Your task to perform on an android device: turn off javascript in the chrome app Image 0: 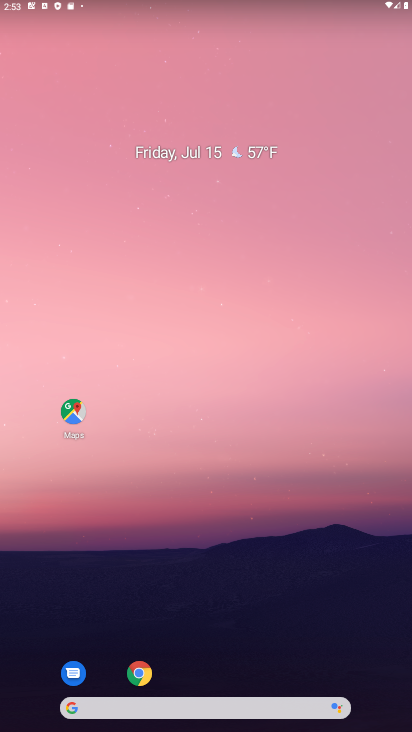
Step 0: click (138, 675)
Your task to perform on an android device: turn off javascript in the chrome app Image 1: 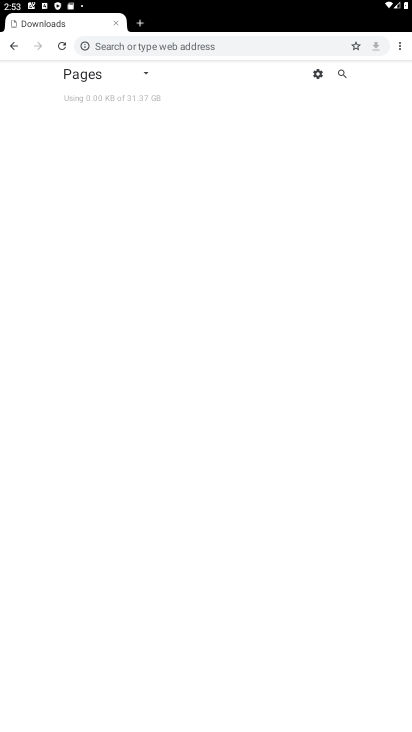
Step 1: click (399, 47)
Your task to perform on an android device: turn off javascript in the chrome app Image 2: 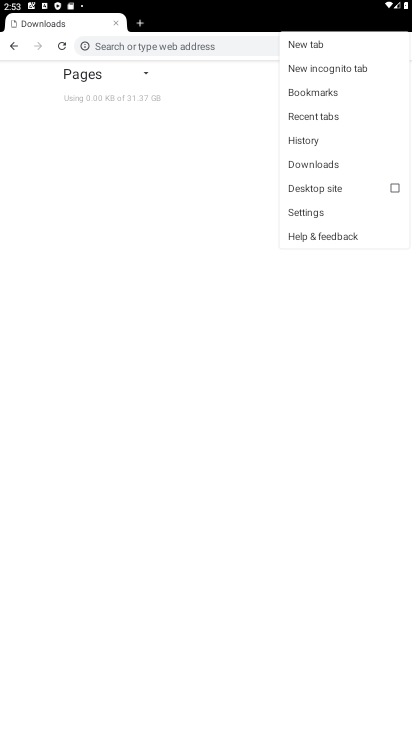
Step 2: click (307, 212)
Your task to perform on an android device: turn off javascript in the chrome app Image 3: 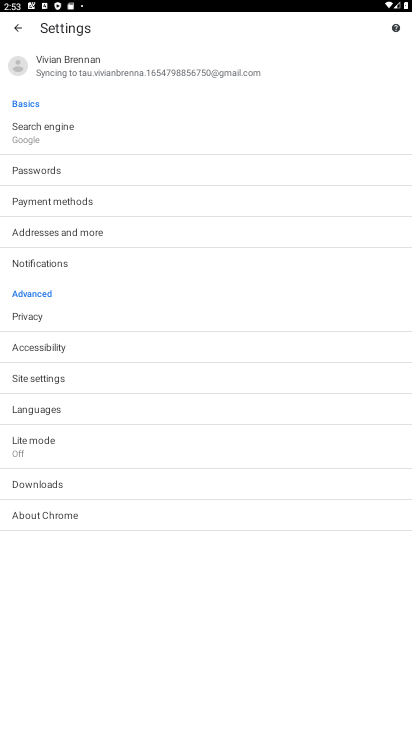
Step 3: click (39, 379)
Your task to perform on an android device: turn off javascript in the chrome app Image 4: 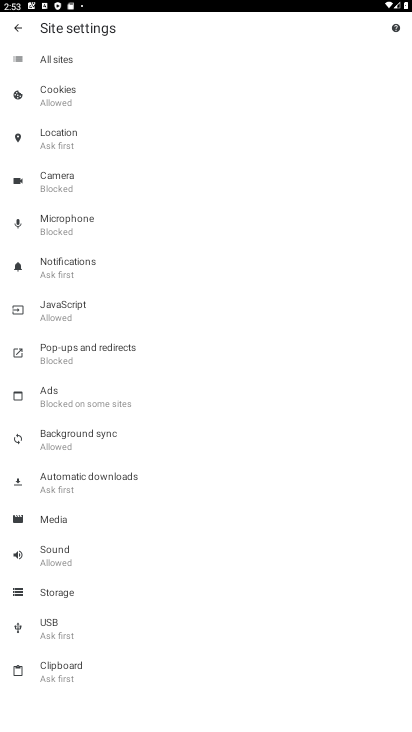
Step 4: click (59, 307)
Your task to perform on an android device: turn off javascript in the chrome app Image 5: 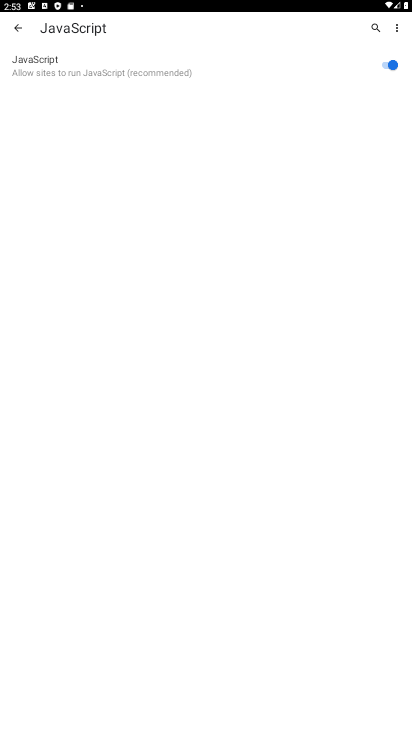
Step 5: click (383, 66)
Your task to perform on an android device: turn off javascript in the chrome app Image 6: 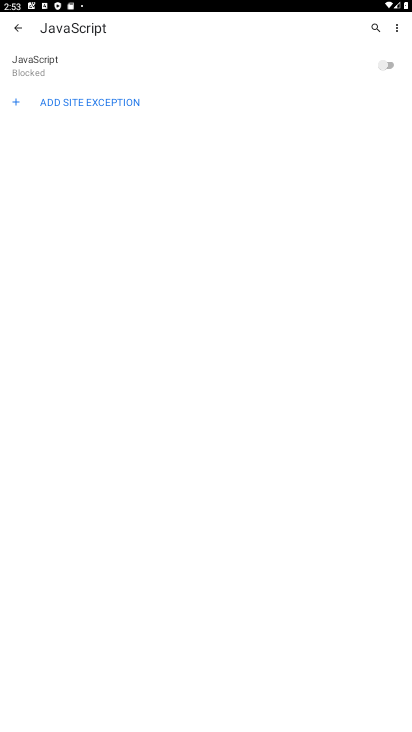
Step 6: task complete